Your task to perform on an android device: Open Chrome and go to settings Image 0: 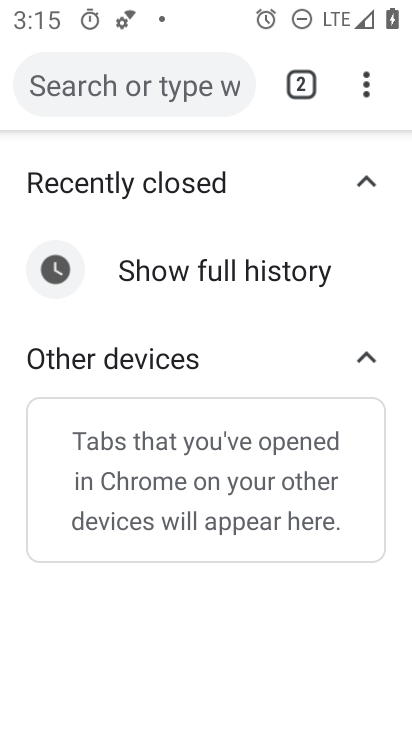
Step 0: press home button
Your task to perform on an android device: Open Chrome and go to settings Image 1: 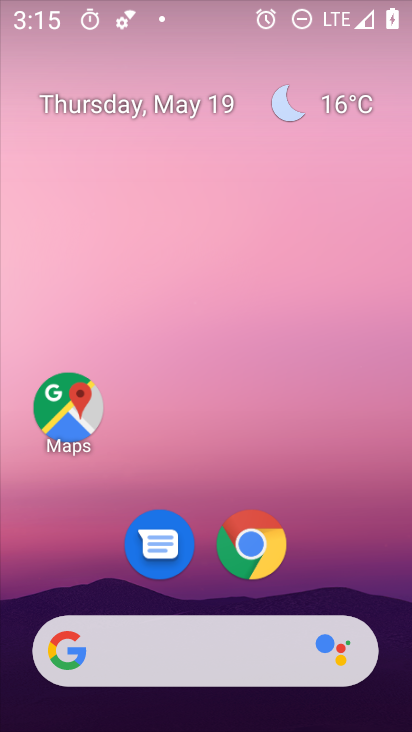
Step 1: click (233, 535)
Your task to perform on an android device: Open Chrome and go to settings Image 2: 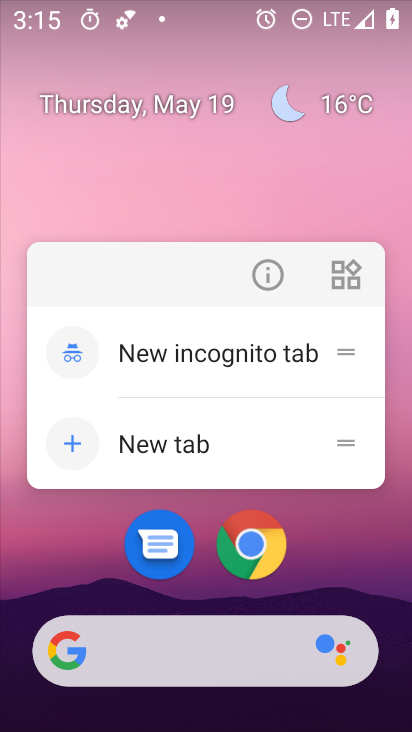
Step 2: click (259, 549)
Your task to perform on an android device: Open Chrome and go to settings Image 3: 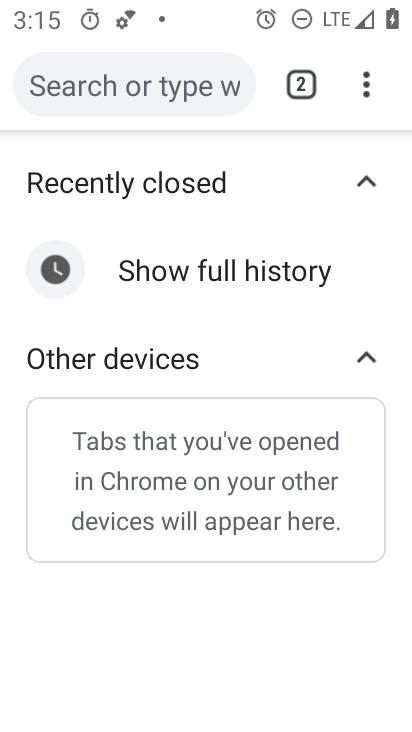
Step 3: click (363, 85)
Your task to perform on an android device: Open Chrome and go to settings Image 4: 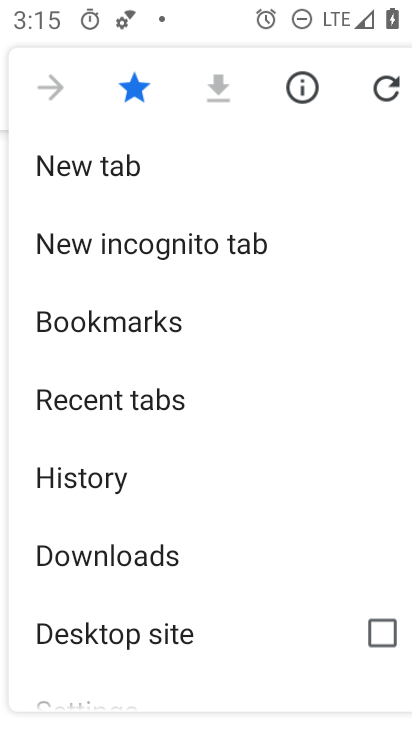
Step 4: drag from (111, 564) to (157, 178)
Your task to perform on an android device: Open Chrome and go to settings Image 5: 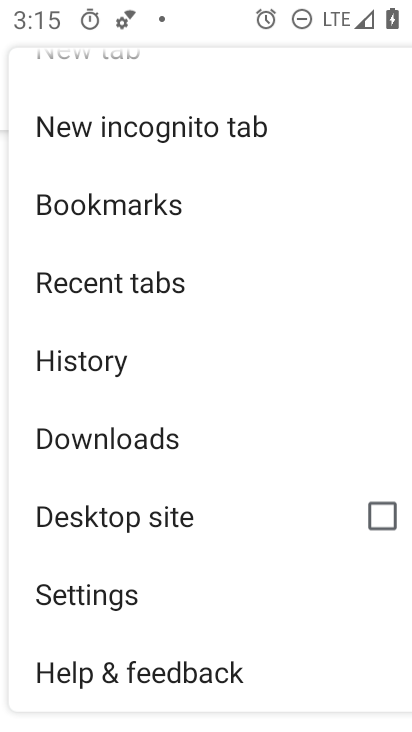
Step 5: click (160, 575)
Your task to perform on an android device: Open Chrome and go to settings Image 6: 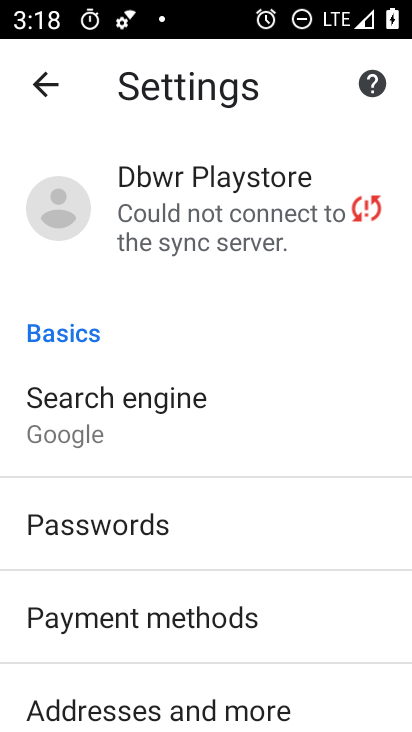
Step 6: task complete